Your task to perform on an android device: uninstall "Mercado Libre" Image 0: 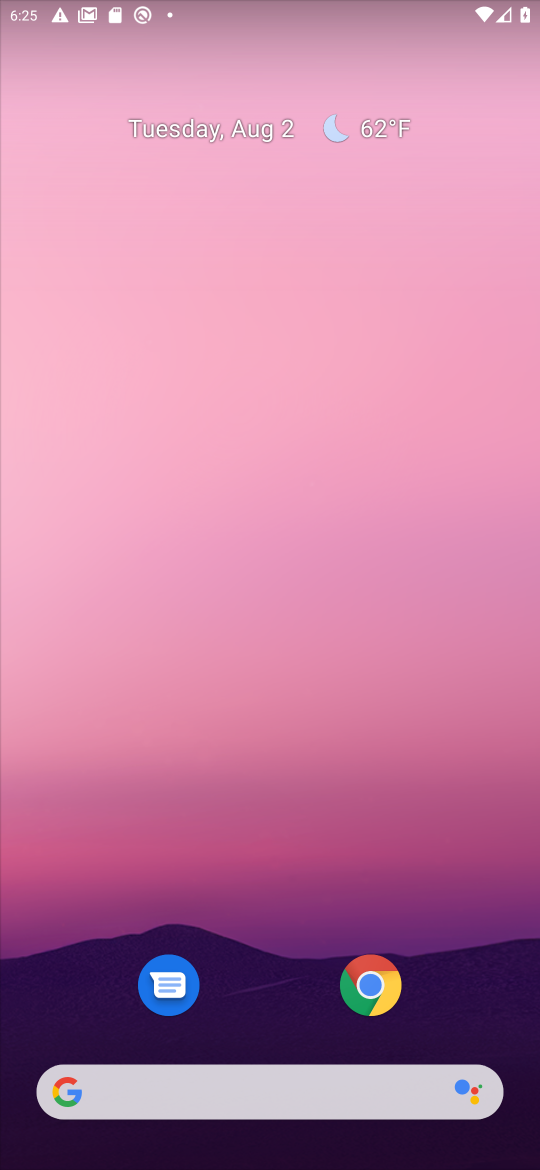
Step 0: drag from (253, 982) to (235, 306)
Your task to perform on an android device: uninstall "Mercado Libre" Image 1: 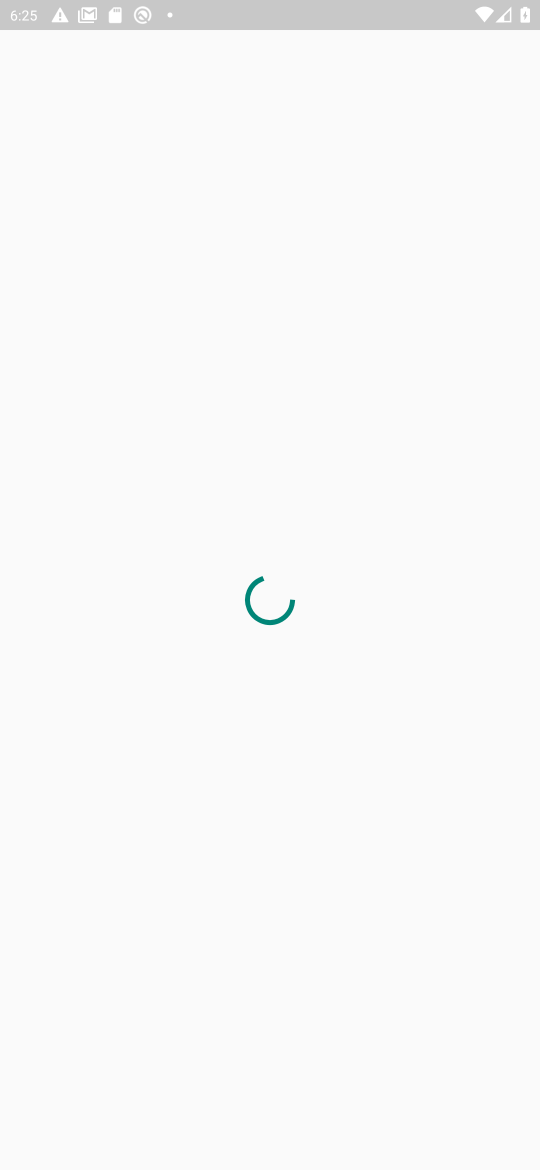
Step 1: click (445, 191)
Your task to perform on an android device: uninstall "Mercado Libre" Image 2: 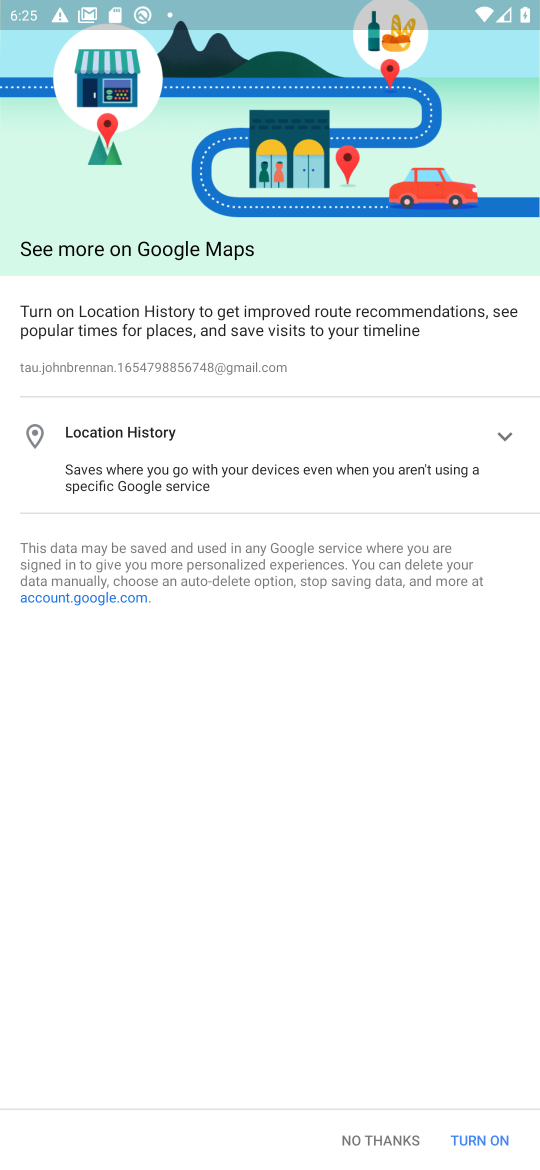
Step 2: press home button
Your task to perform on an android device: uninstall "Mercado Libre" Image 3: 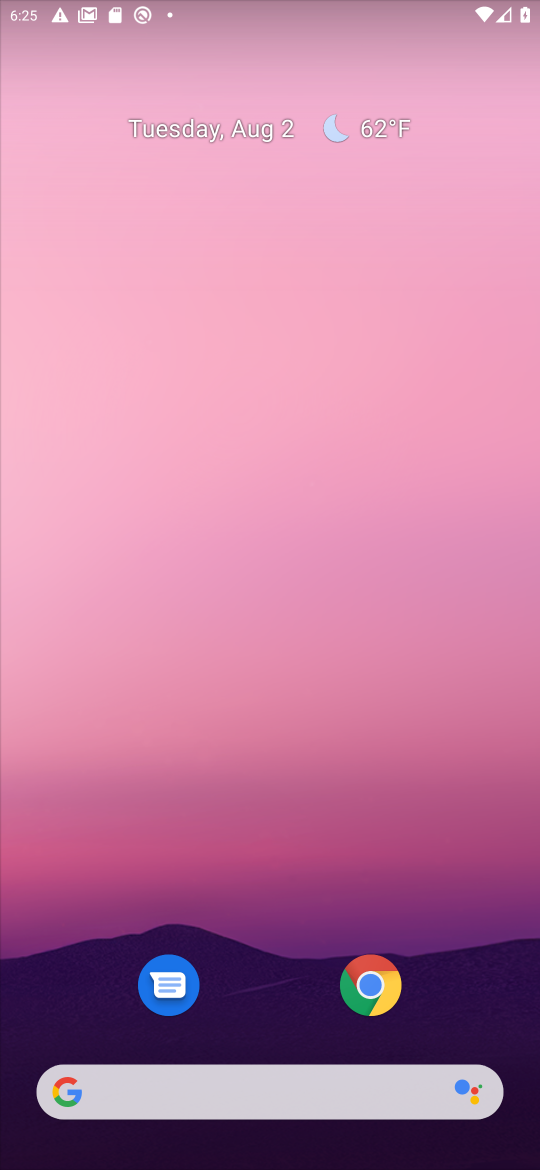
Step 3: drag from (237, 551) to (237, 349)
Your task to perform on an android device: uninstall "Mercado Libre" Image 4: 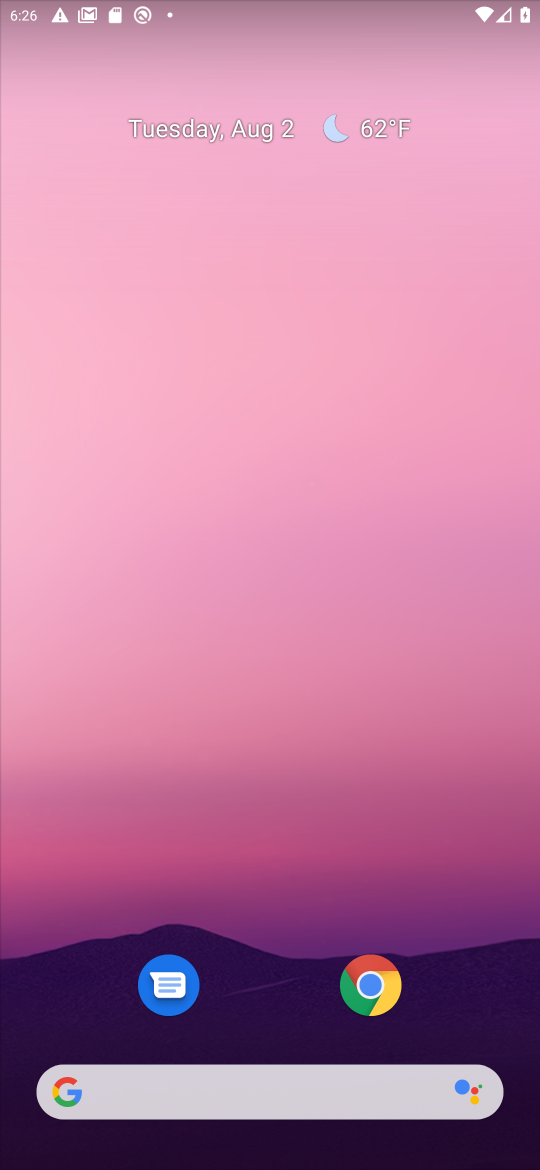
Step 4: drag from (279, 943) to (275, 354)
Your task to perform on an android device: uninstall "Mercado Libre" Image 5: 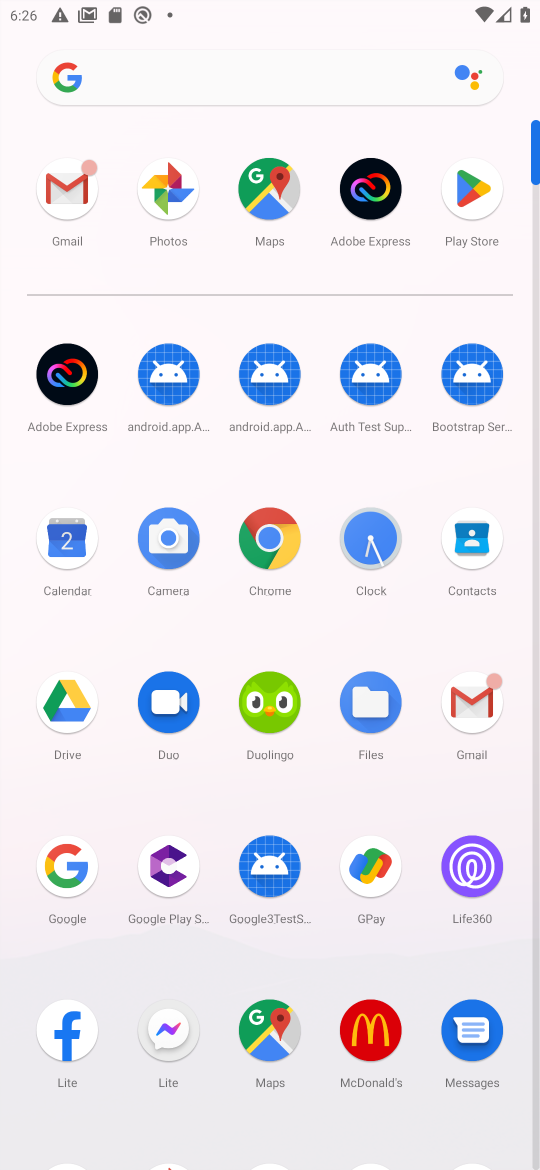
Step 5: click (460, 196)
Your task to perform on an android device: uninstall "Mercado Libre" Image 6: 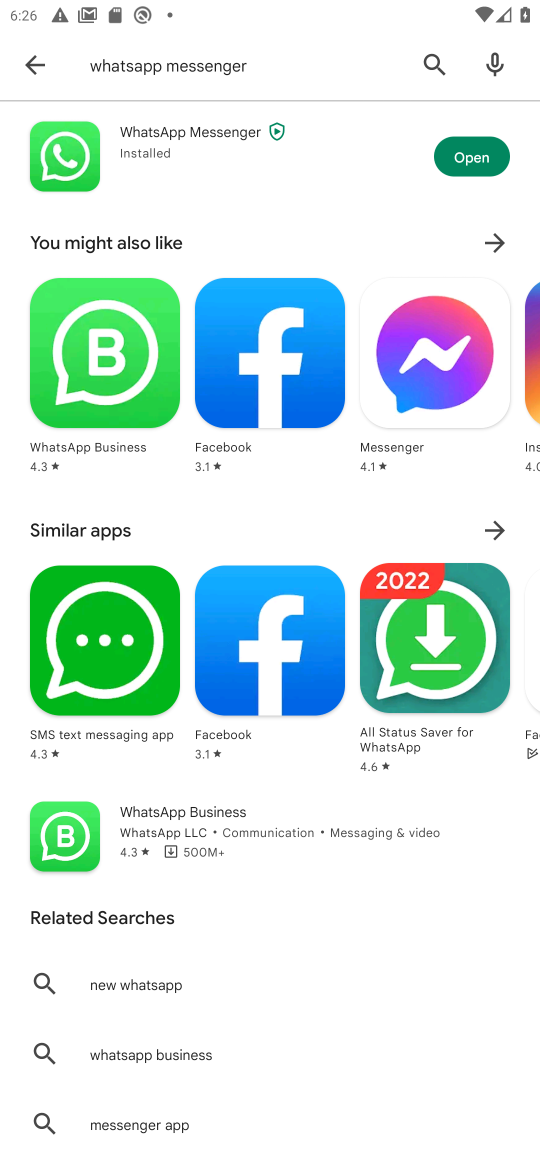
Step 6: click (427, 64)
Your task to perform on an android device: uninstall "Mercado Libre" Image 7: 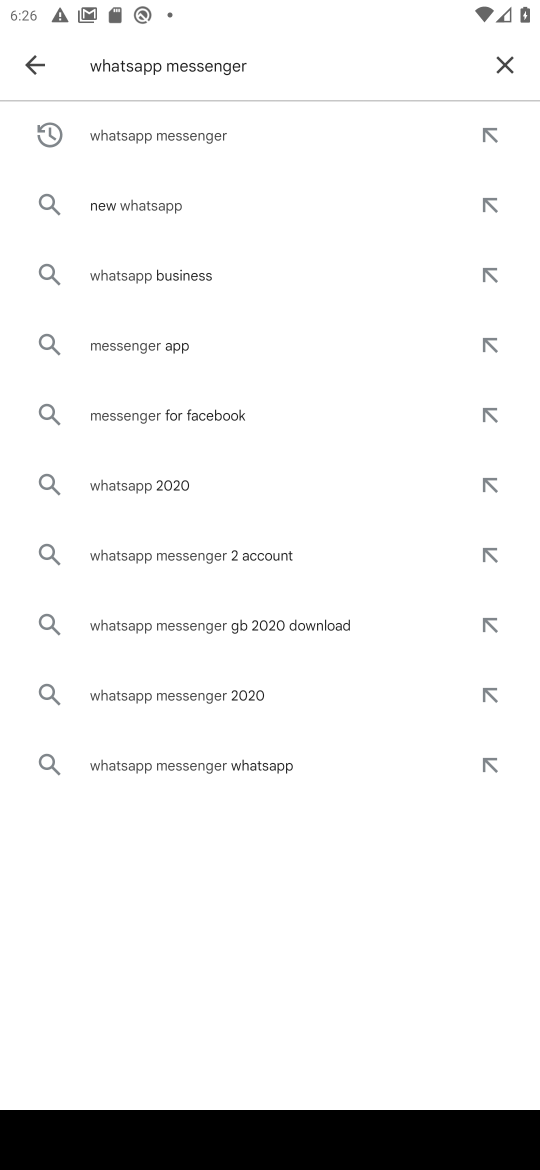
Step 7: click (488, 61)
Your task to perform on an android device: uninstall "Mercado Libre" Image 8: 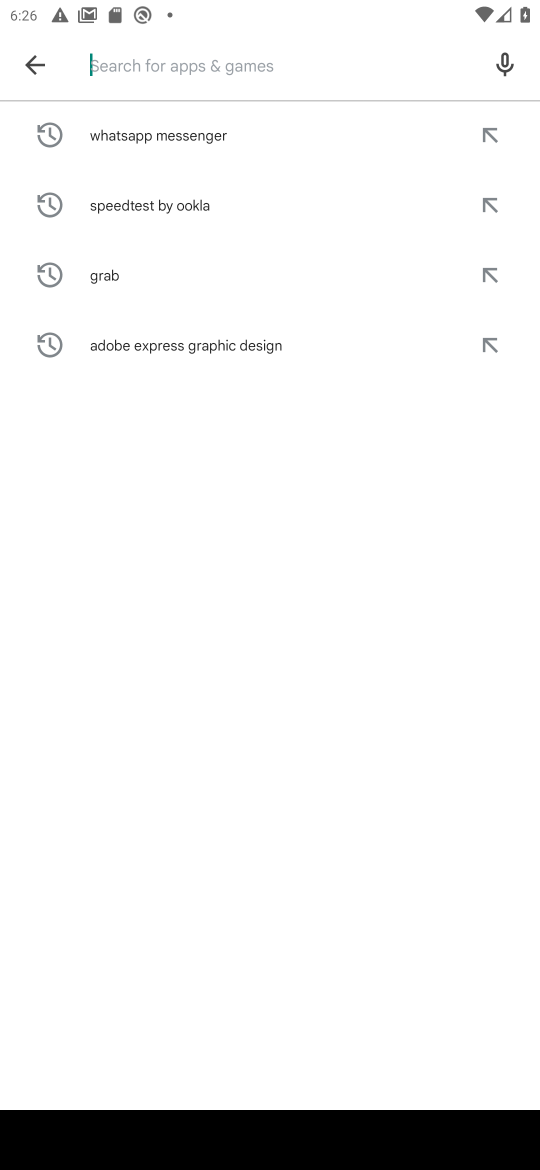
Step 8: type "Mercado Libre"
Your task to perform on an android device: uninstall "Mercado Libre" Image 9: 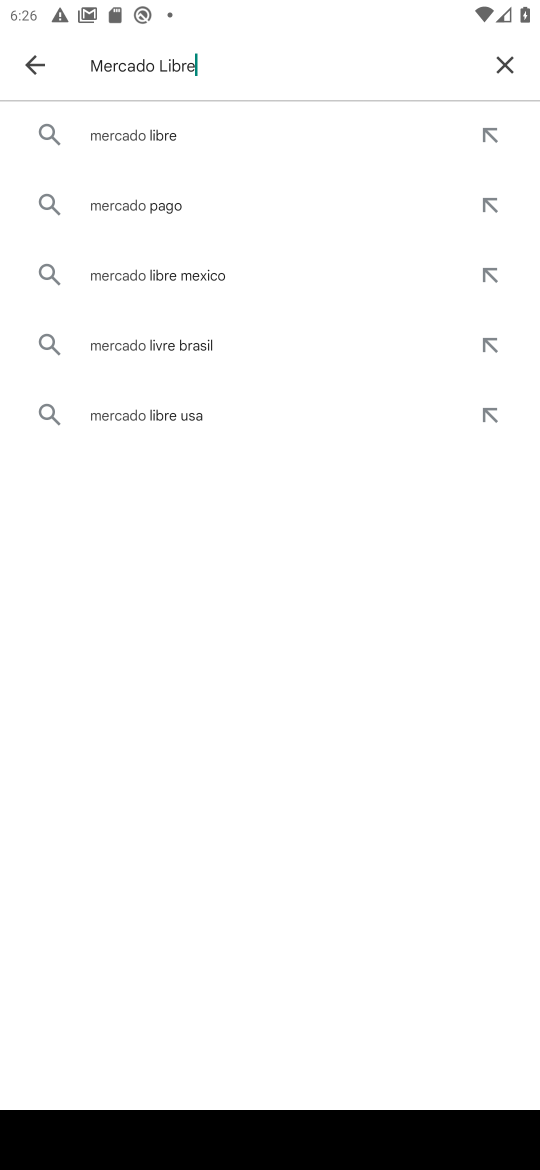
Step 9: type ""
Your task to perform on an android device: uninstall "Mercado Libre" Image 10: 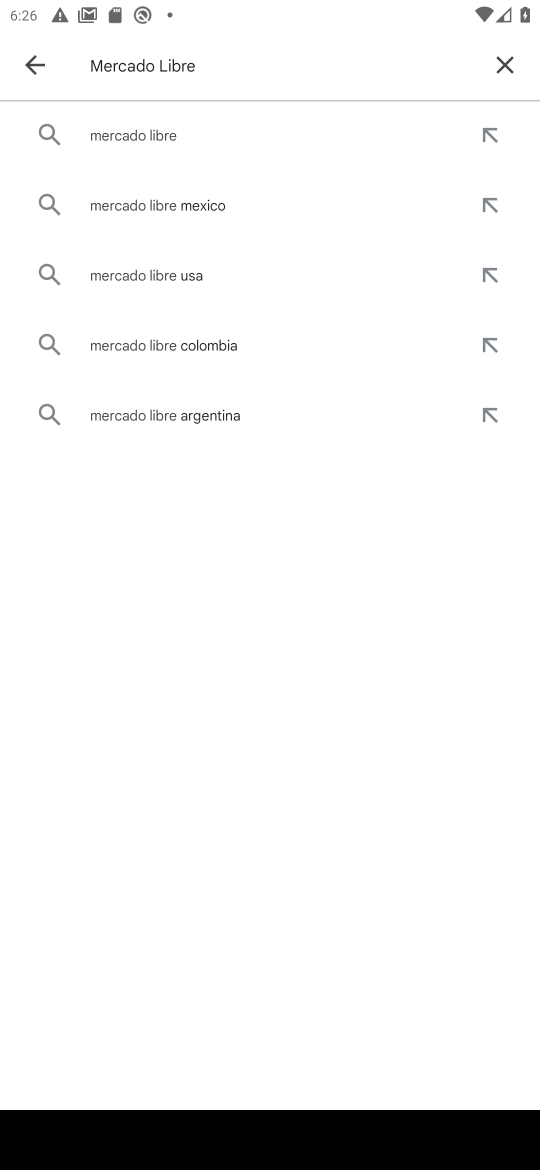
Step 10: click (174, 134)
Your task to perform on an android device: uninstall "Mercado Libre" Image 11: 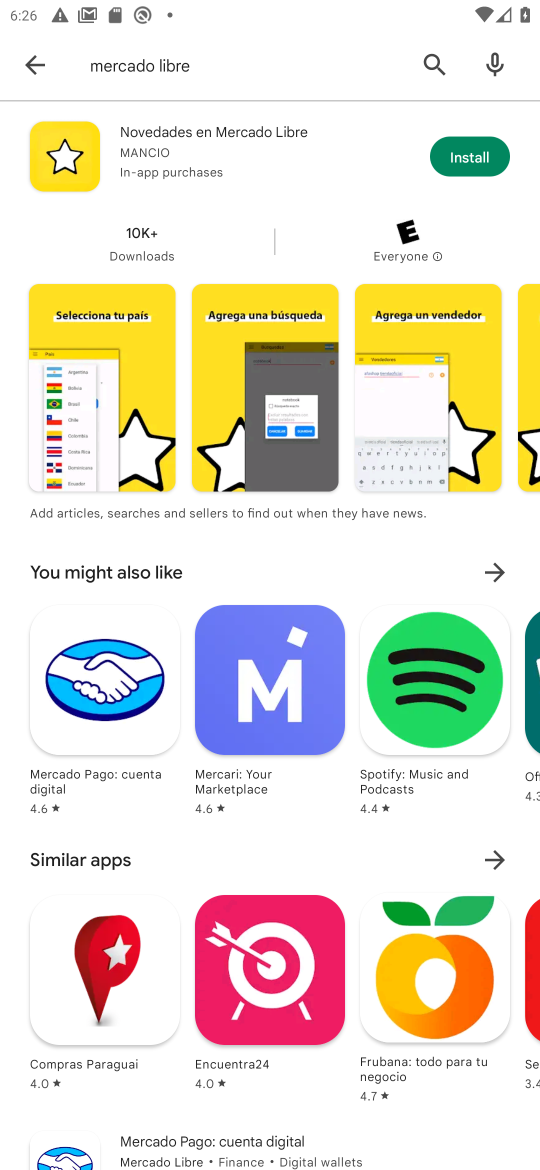
Step 11: task complete